Your task to perform on an android device: Open Google Maps and go to "Timeline" Image 0: 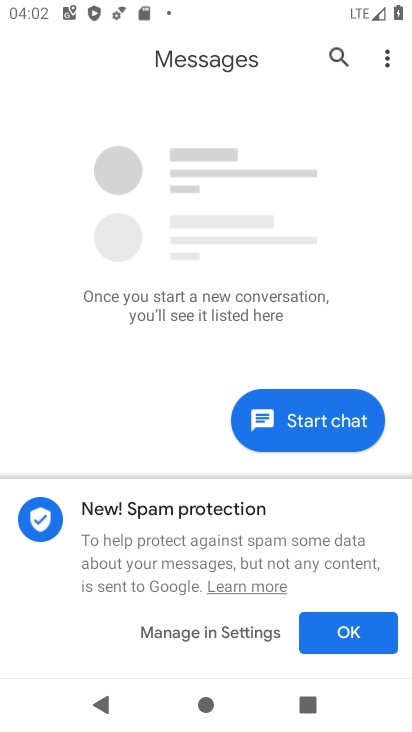
Step 0: press home button
Your task to perform on an android device: Open Google Maps and go to "Timeline" Image 1: 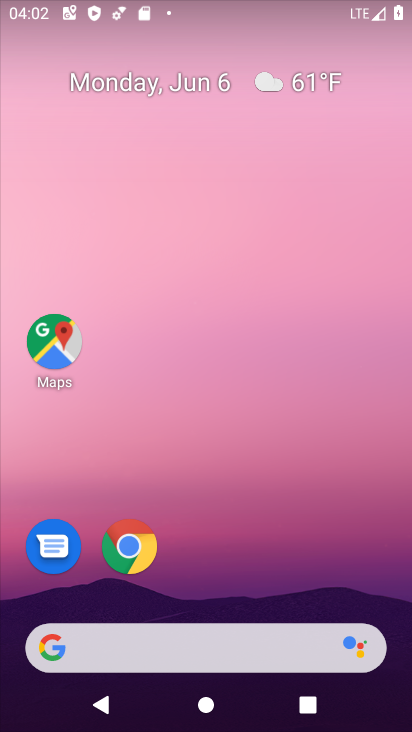
Step 1: click (41, 356)
Your task to perform on an android device: Open Google Maps and go to "Timeline" Image 2: 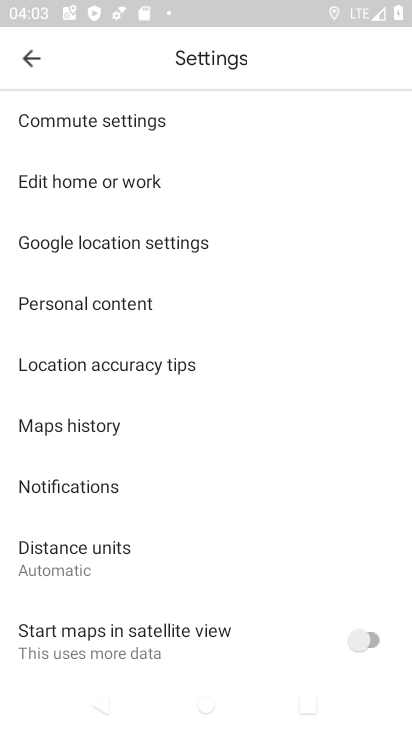
Step 2: task complete